Your task to perform on an android device: When is my next meeting? Image 0: 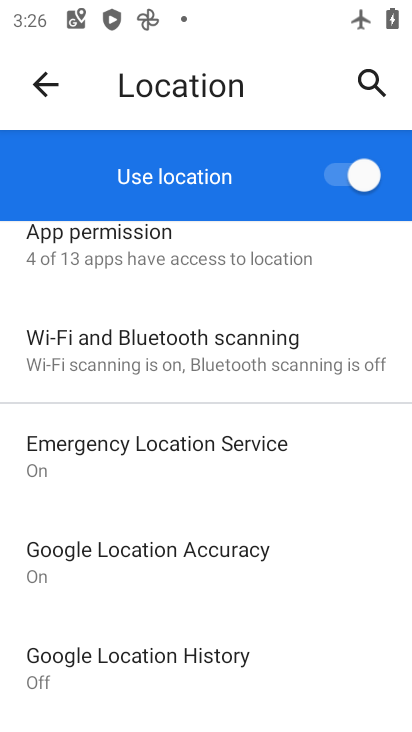
Step 0: press home button
Your task to perform on an android device: When is my next meeting? Image 1: 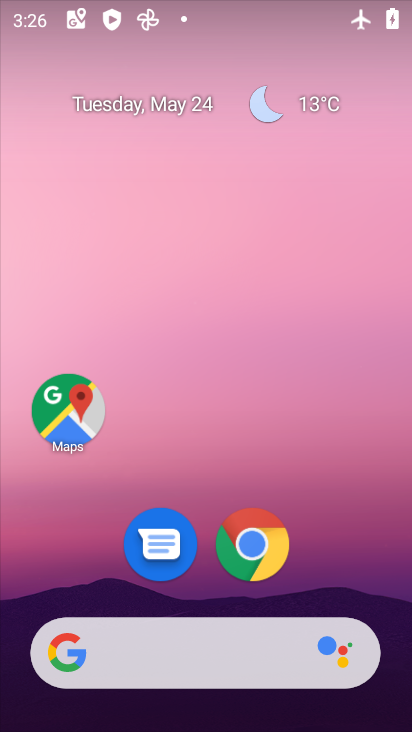
Step 1: drag from (351, 567) to (289, 124)
Your task to perform on an android device: When is my next meeting? Image 2: 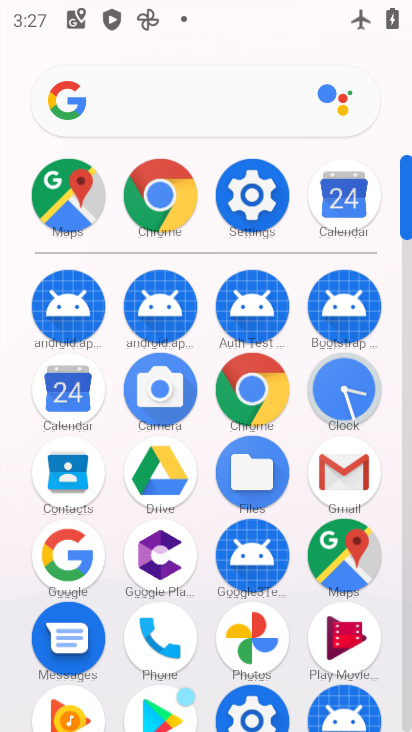
Step 2: click (78, 400)
Your task to perform on an android device: When is my next meeting? Image 3: 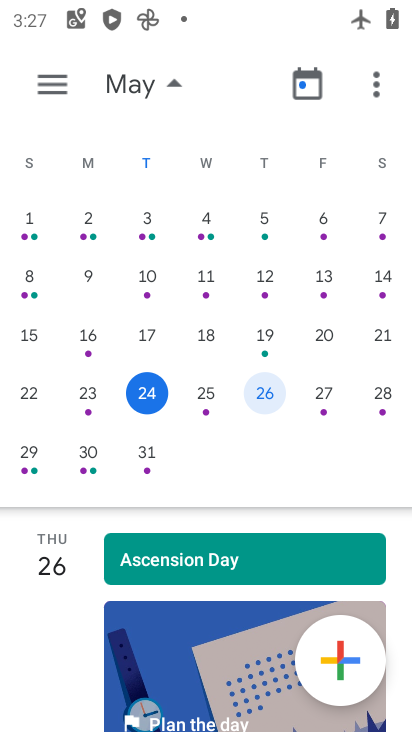
Step 3: click (201, 400)
Your task to perform on an android device: When is my next meeting? Image 4: 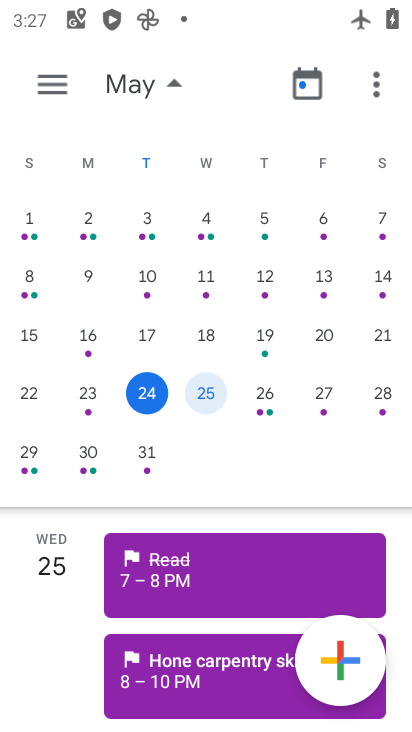
Step 4: task complete